Your task to perform on an android device: Go to Google maps Image 0: 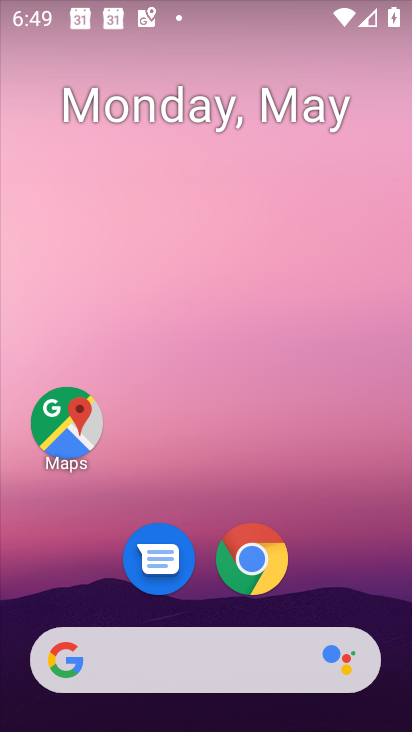
Step 0: drag from (389, 662) to (298, 238)
Your task to perform on an android device: Go to Google maps Image 1: 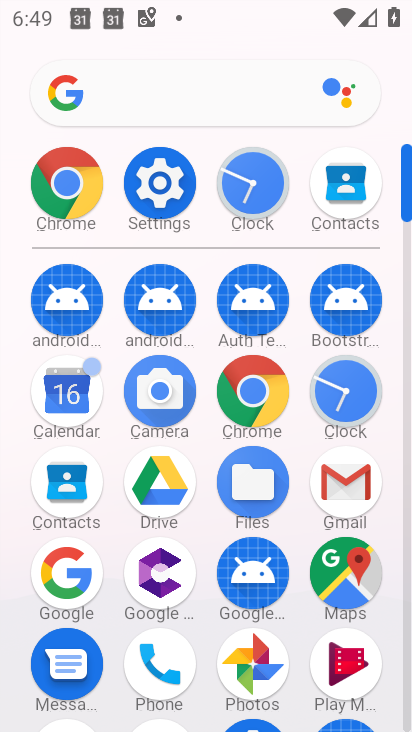
Step 1: click (337, 564)
Your task to perform on an android device: Go to Google maps Image 2: 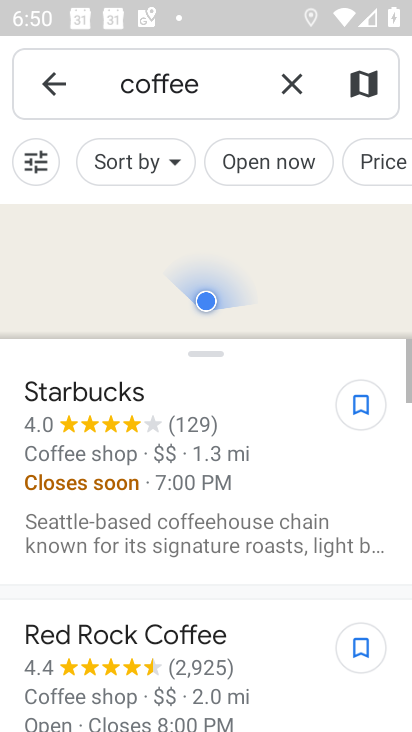
Step 2: click (298, 115)
Your task to perform on an android device: Go to Google maps Image 3: 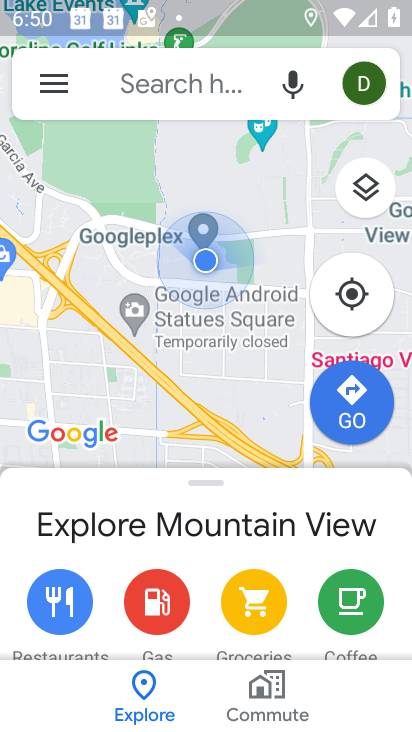
Step 3: task complete